Your task to perform on an android device: open sync settings in chrome Image 0: 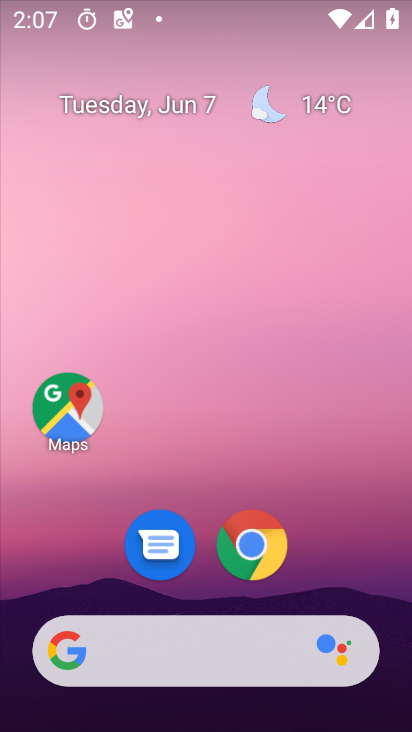
Step 0: click (253, 536)
Your task to perform on an android device: open sync settings in chrome Image 1: 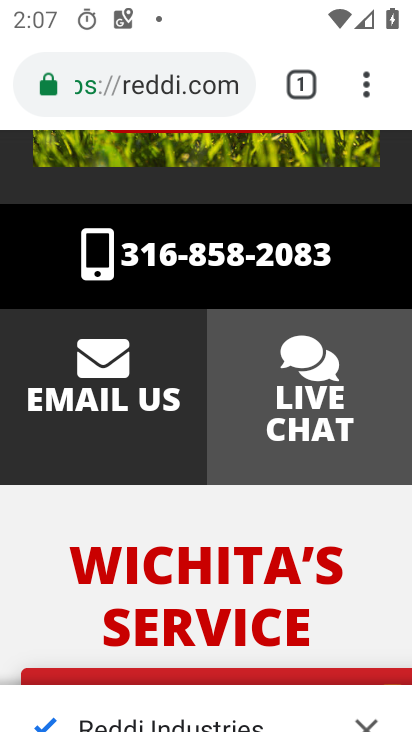
Step 1: click (355, 92)
Your task to perform on an android device: open sync settings in chrome Image 2: 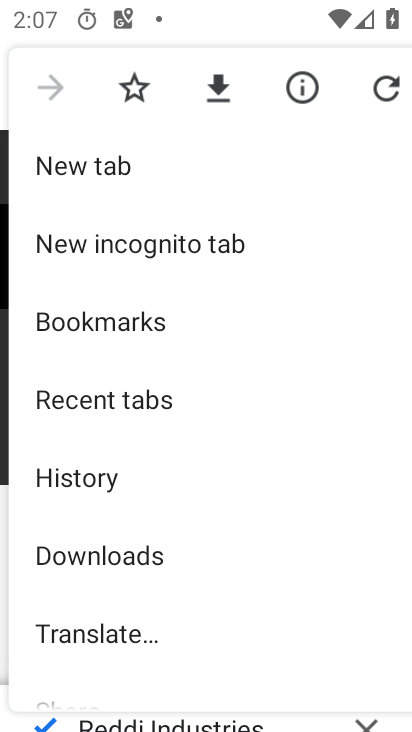
Step 2: click (238, 35)
Your task to perform on an android device: open sync settings in chrome Image 3: 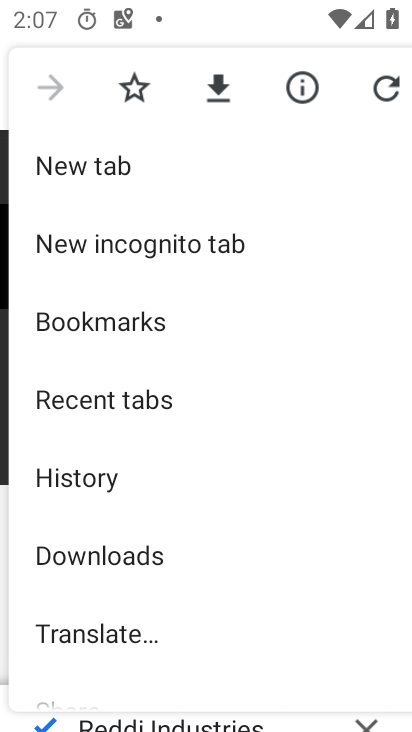
Step 3: drag from (225, 571) to (243, 88)
Your task to perform on an android device: open sync settings in chrome Image 4: 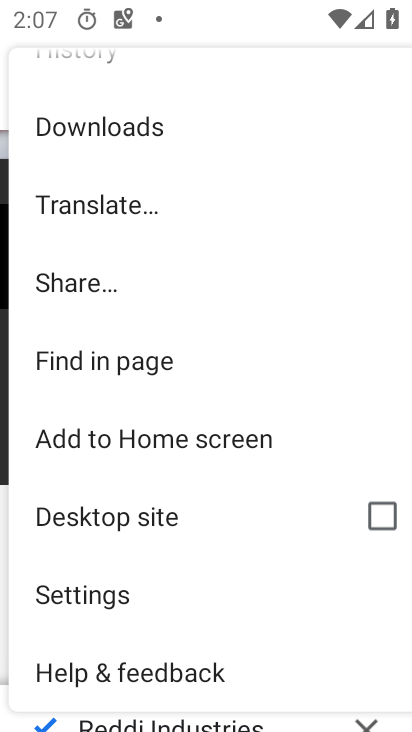
Step 4: click (205, 609)
Your task to perform on an android device: open sync settings in chrome Image 5: 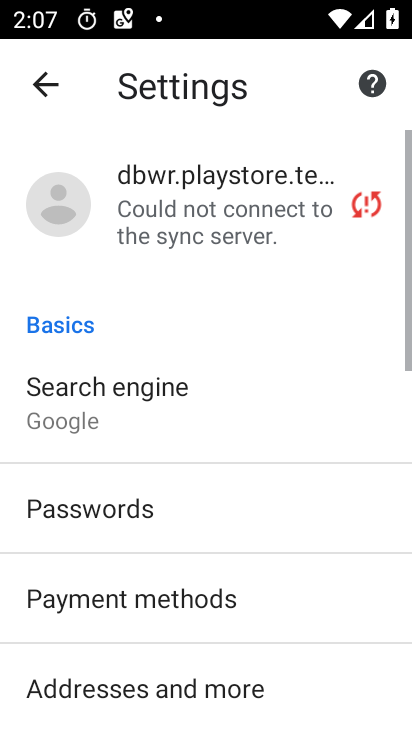
Step 5: drag from (172, 656) to (184, 9)
Your task to perform on an android device: open sync settings in chrome Image 6: 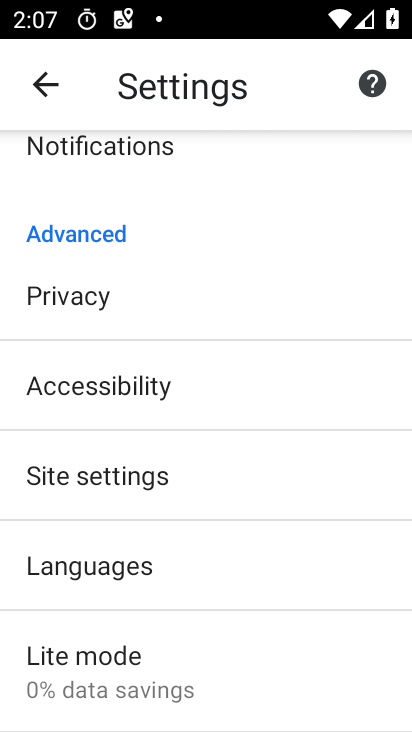
Step 6: click (174, 492)
Your task to perform on an android device: open sync settings in chrome Image 7: 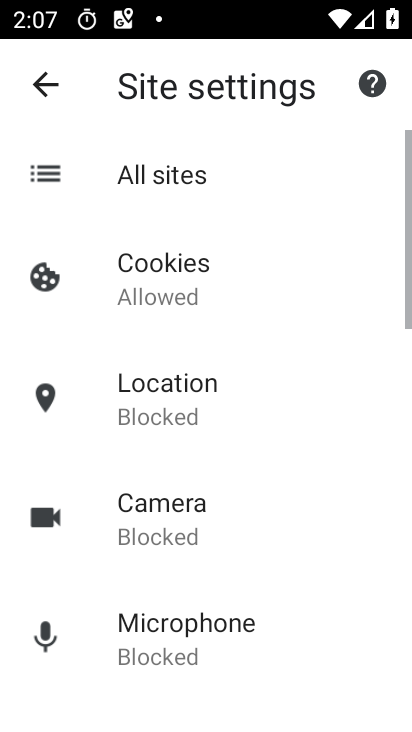
Step 7: drag from (242, 591) to (245, 82)
Your task to perform on an android device: open sync settings in chrome Image 8: 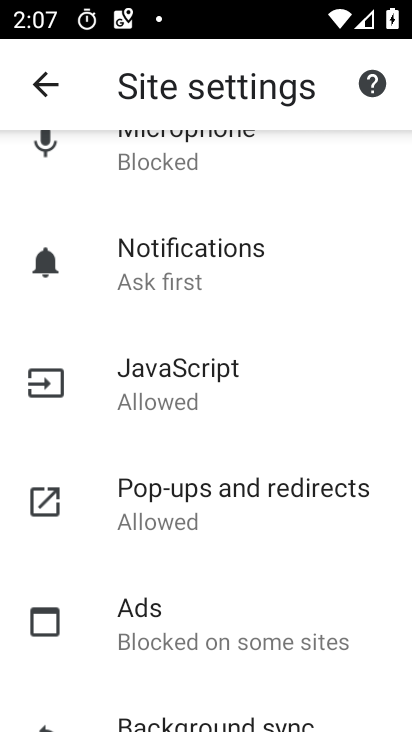
Step 8: click (221, 715)
Your task to perform on an android device: open sync settings in chrome Image 9: 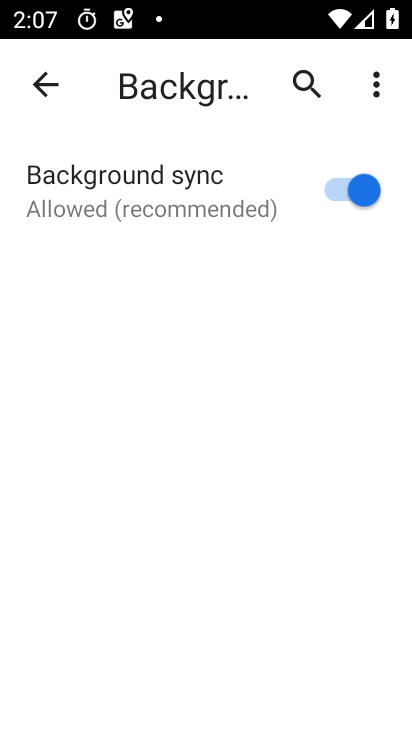
Step 9: task complete